Your task to perform on an android device: turn on showing notifications on the lock screen Image 0: 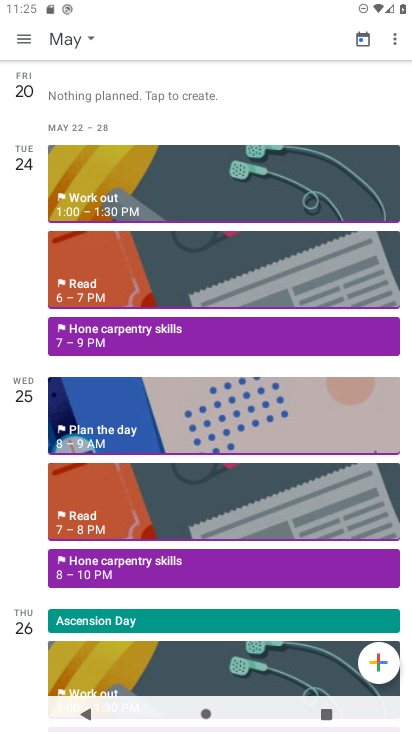
Step 0: press home button
Your task to perform on an android device: turn on showing notifications on the lock screen Image 1: 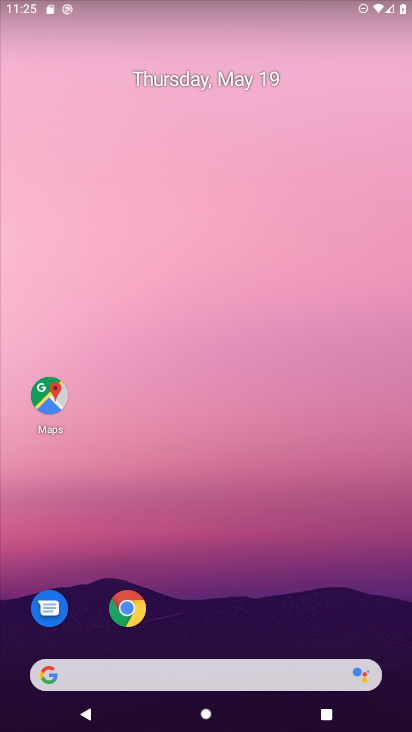
Step 1: drag from (322, 595) to (292, 13)
Your task to perform on an android device: turn on showing notifications on the lock screen Image 2: 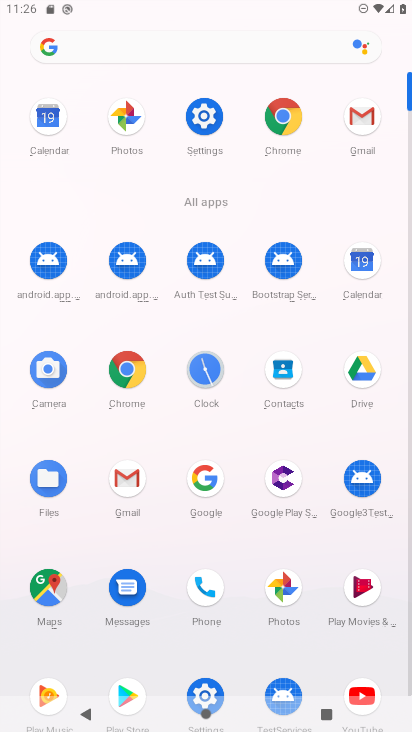
Step 2: click (205, 676)
Your task to perform on an android device: turn on showing notifications on the lock screen Image 3: 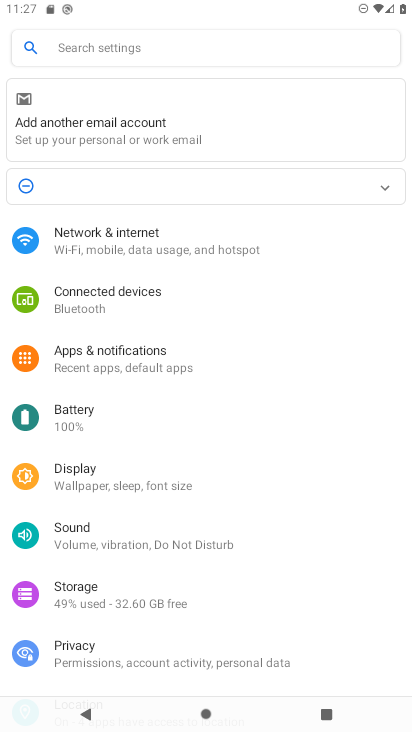
Step 3: click (211, 368)
Your task to perform on an android device: turn on showing notifications on the lock screen Image 4: 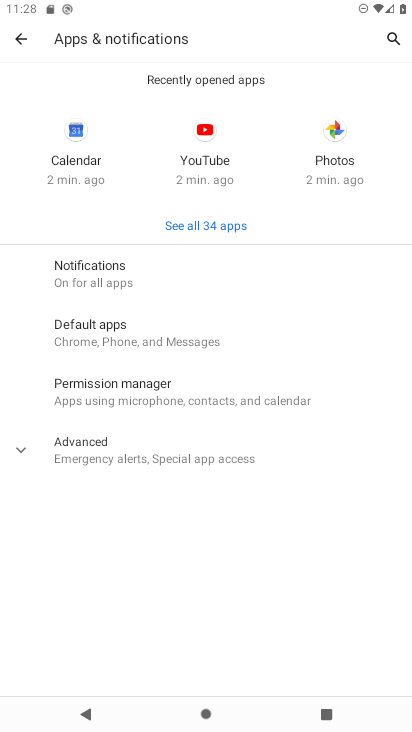
Step 4: click (138, 276)
Your task to perform on an android device: turn on showing notifications on the lock screen Image 5: 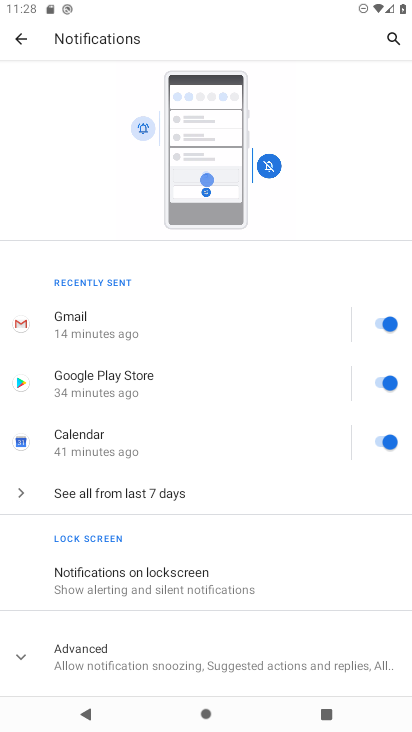
Step 5: click (190, 579)
Your task to perform on an android device: turn on showing notifications on the lock screen Image 6: 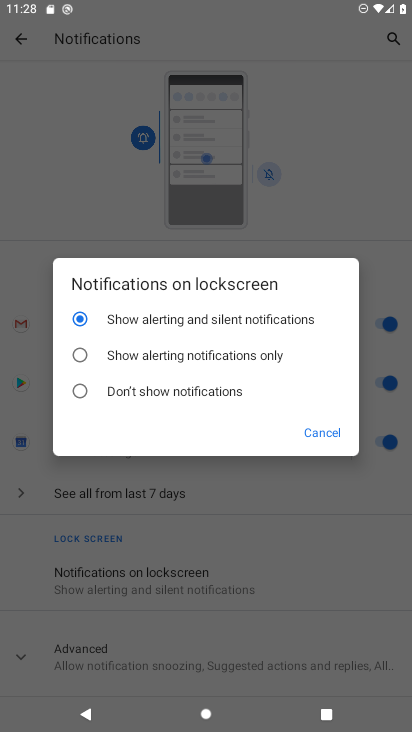
Step 6: task complete